Your task to perform on an android device: delete location history Image 0: 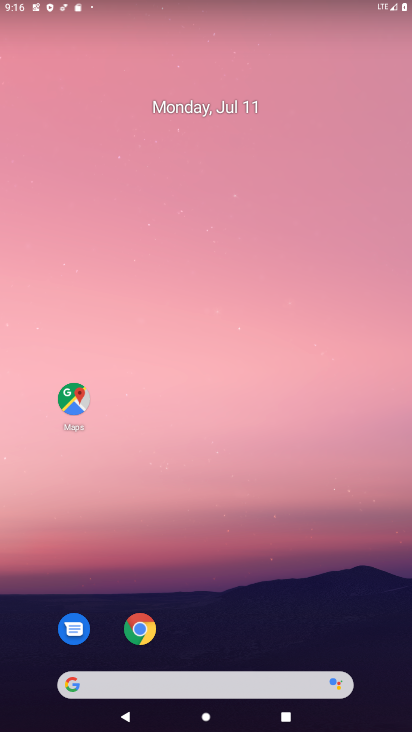
Step 0: drag from (81, 592) to (227, 145)
Your task to perform on an android device: delete location history Image 1: 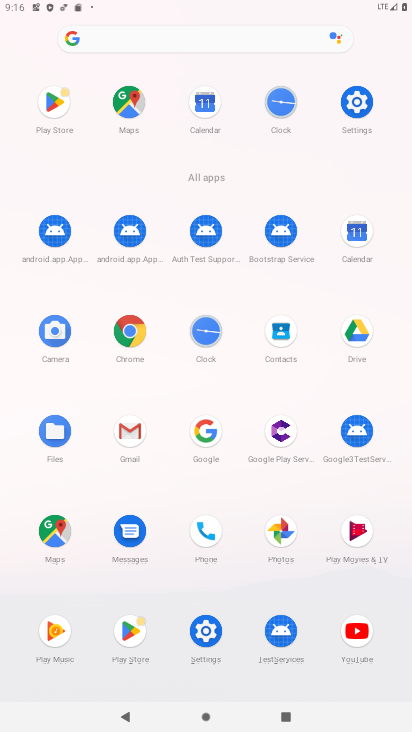
Step 1: click (208, 622)
Your task to perform on an android device: delete location history Image 2: 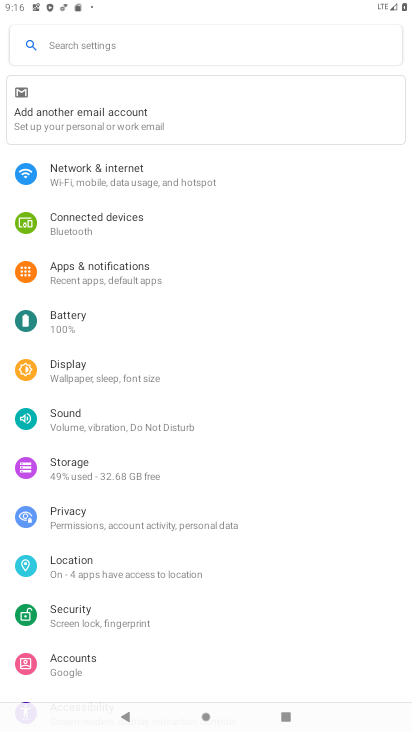
Step 2: click (112, 553)
Your task to perform on an android device: delete location history Image 3: 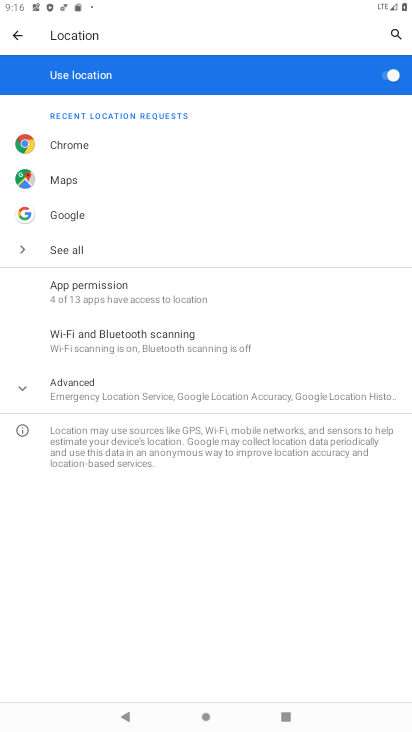
Step 3: click (69, 382)
Your task to perform on an android device: delete location history Image 4: 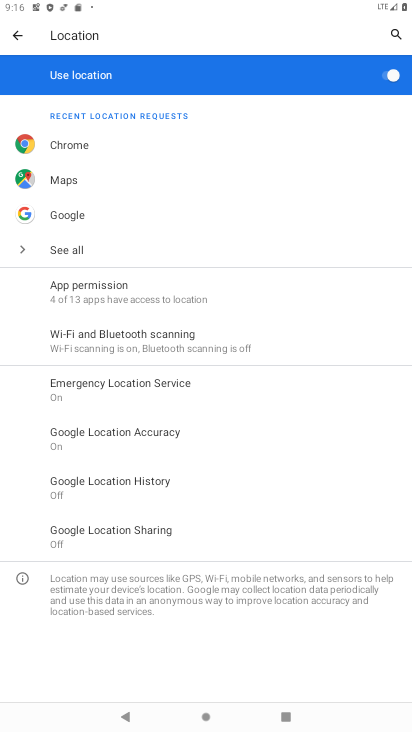
Step 4: click (102, 487)
Your task to perform on an android device: delete location history Image 5: 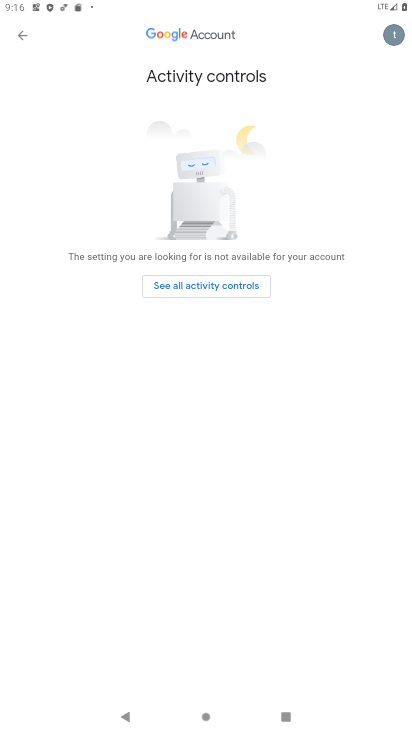
Step 5: task complete